Your task to perform on an android device: Turn off the flashlight Image 0: 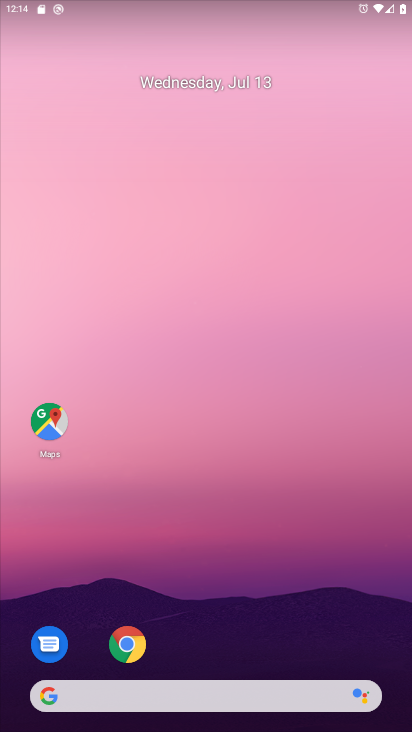
Step 0: drag from (321, 587) to (250, 358)
Your task to perform on an android device: Turn off the flashlight Image 1: 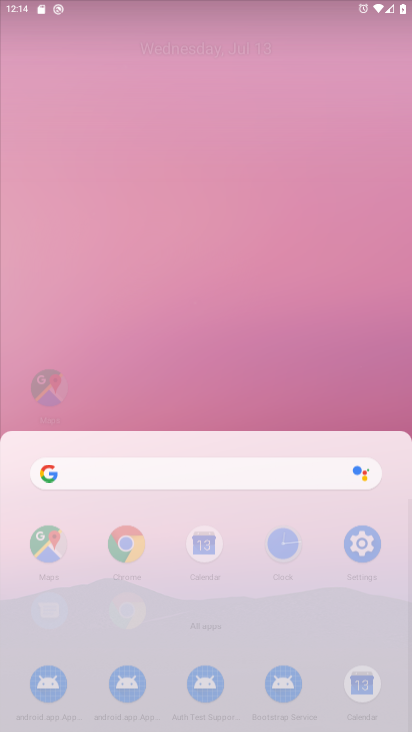
Step 1: task complete